Your task to perform on an android device: turn on showing notifications on the lock screen Image 0: 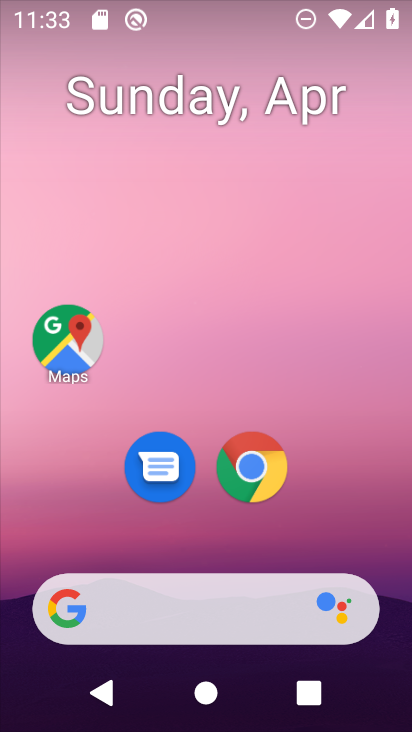
Step 0: drag from (368, 540) to (363, 140)
Your task to perform on an android device: turn on showing notifications on the lock screen Image 1: 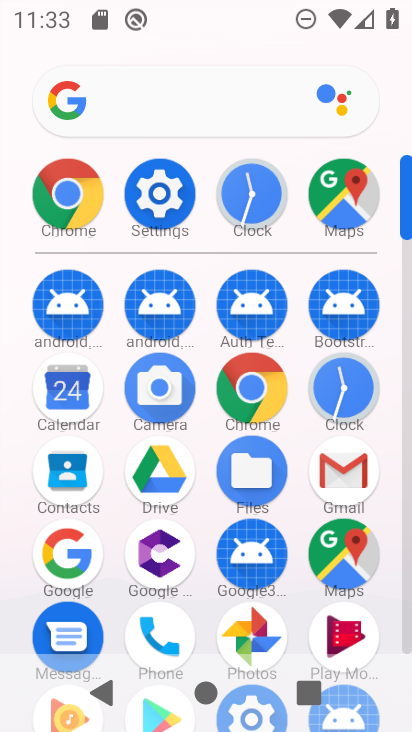
Step 1: click (172, 200)
Your task to perform on an android device: turn on showing notifications on the lock screen Image 2: 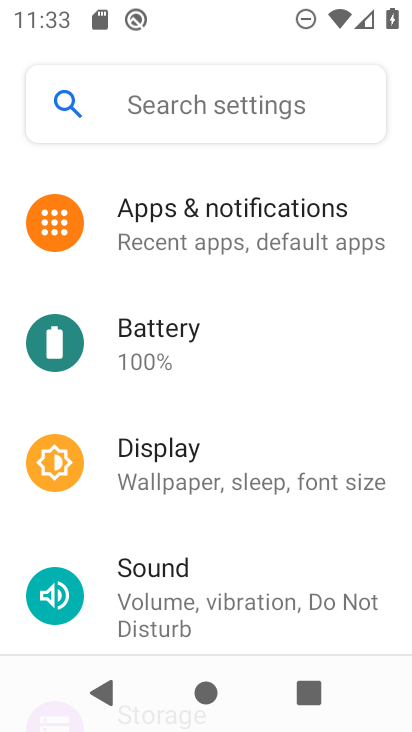
Step 2: drag from (354, 547) to (357, 342)
Your task to perform on an android device: turn on showing notifications on the lock screen Image 3: 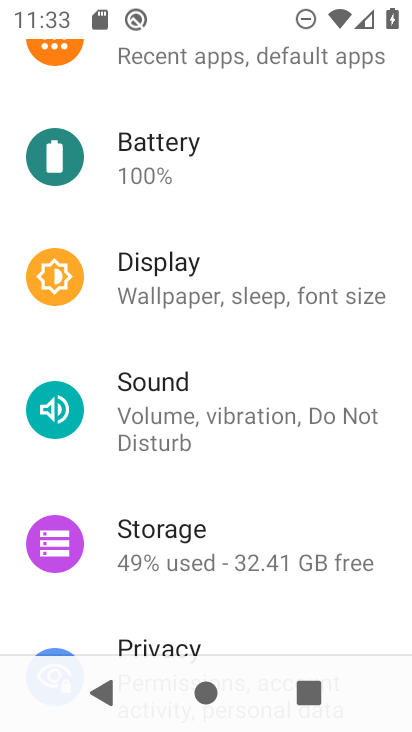
Step 3: drag from (354, 502) to (356, 312)
Your task to perform on an android device: turn on showing notifications on the lock screen Image 4: 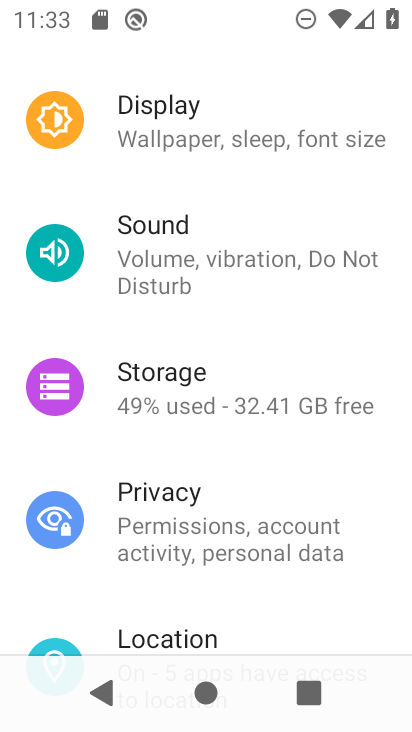
Step 4: drag from (371, 583) to (374, 375)
Your task to perform on an android device: turn on showing notifications on the lock screen Image 5: 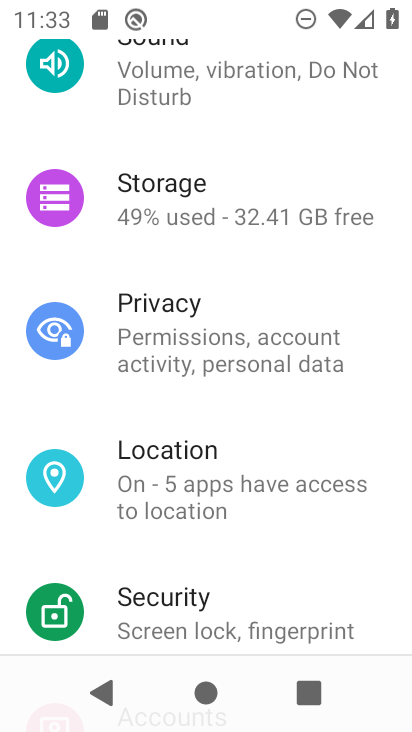
Step 5: drag from (370, 552) to (361, 353)
Your task to perform on an android device: turn on showing notifications on the lock screen Image 6: 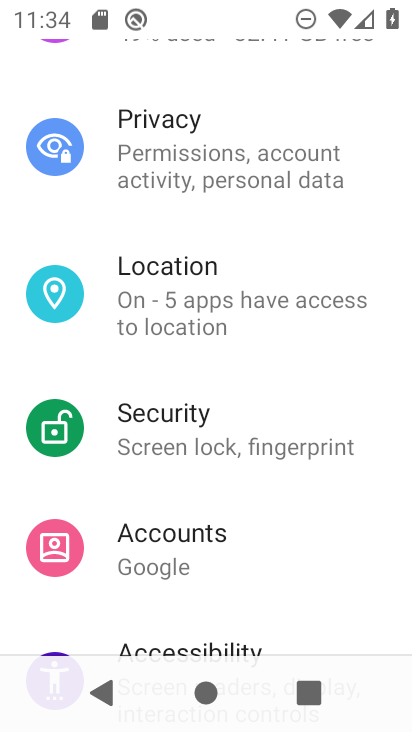
Step 6: drag from (377, 193) to (373, 327)
Your task to perform on an android device: turn on showing notifications on the lock screen Image 7: 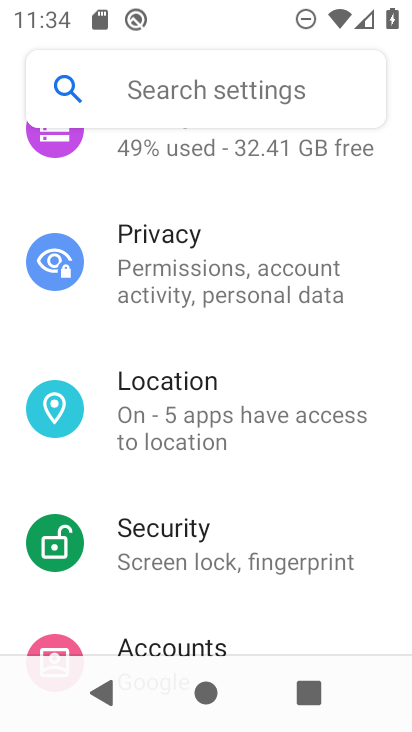
Step 7: drag from (384, 208) to (388, 376)
Your task to perform on an android device: turn on showing notifications on the lock screen Image 8: 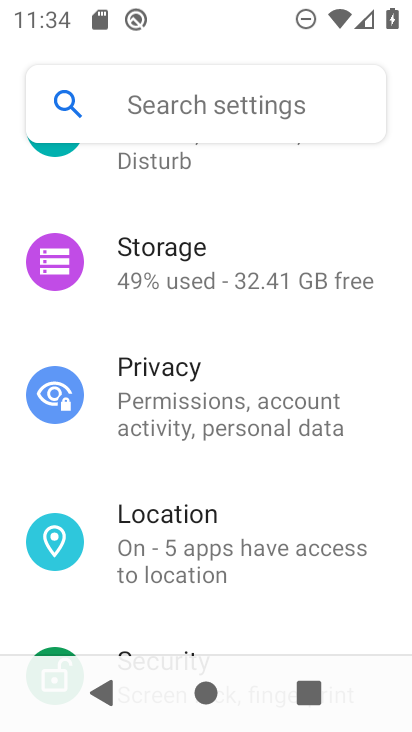
Step 8: drag from (384, 193) to (376, 392)
Your task to perform on an android device: turn on showing notifications on the lock screen Image 9: 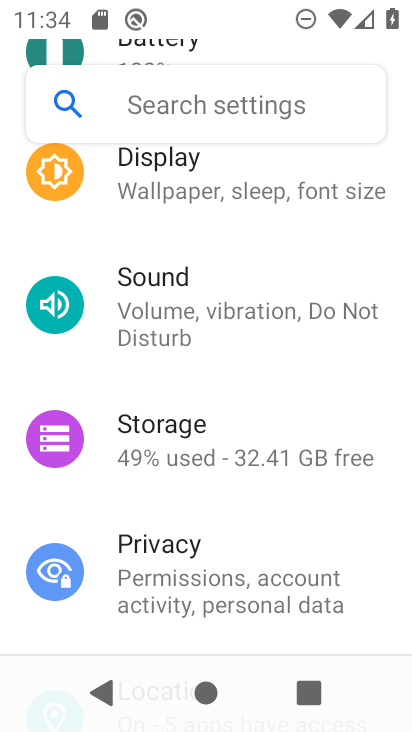
Step 9: drag from (388, 161) to (384, 396)
Your task to perform on an android device: turn on showing notifications on the lock screen Image 10: 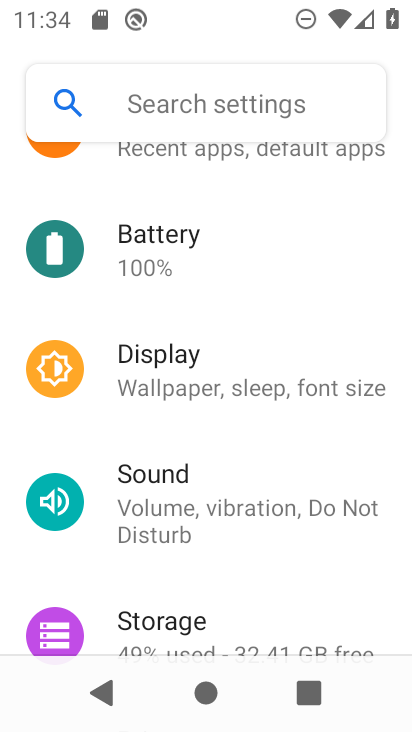
Step 10: drag from (363, 191) to (360, 404)
Your task to perform on an android device: turn on showing notifications on the lock screen Image 11: 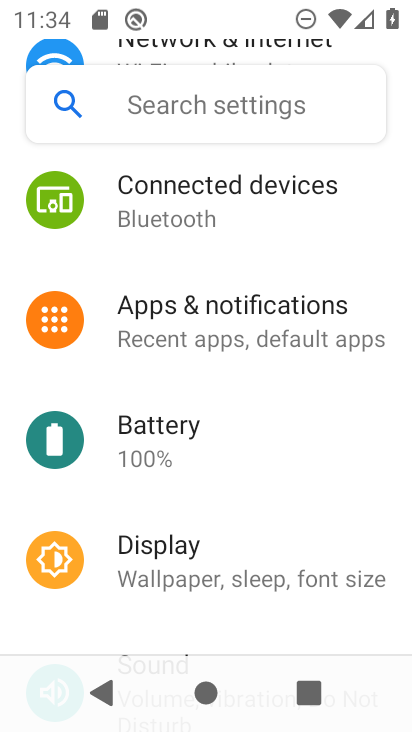
Step 11: drag from (357, 156) to (362, 384)
Your task to perform on an android device: turn on showing notifications on the lock screen Image 12: 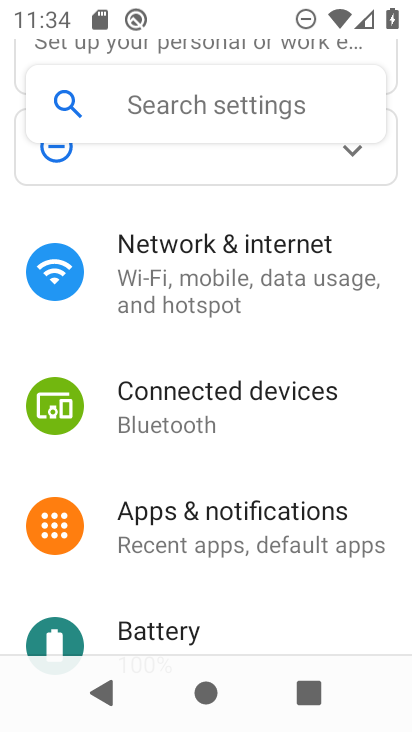
Step 12: click (321, 518)
Your task to perform on an android device: turn on showing notifications on the lock screen Image 13: 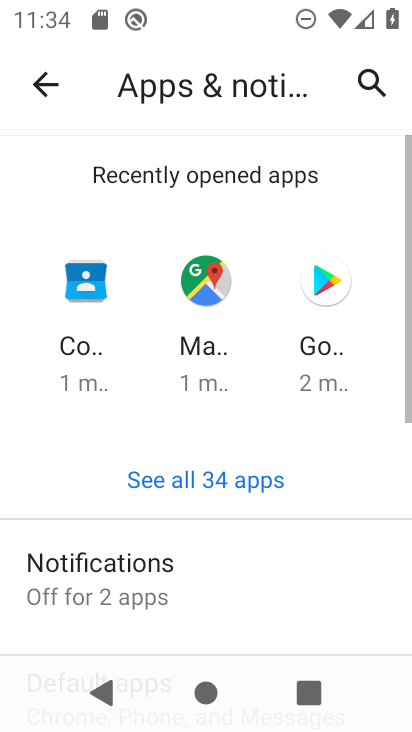
Step 13: drag from (276, 561) to (260, 345)
Your task to perform on an android device: turn on showing notifications on the lock screen Image 14: 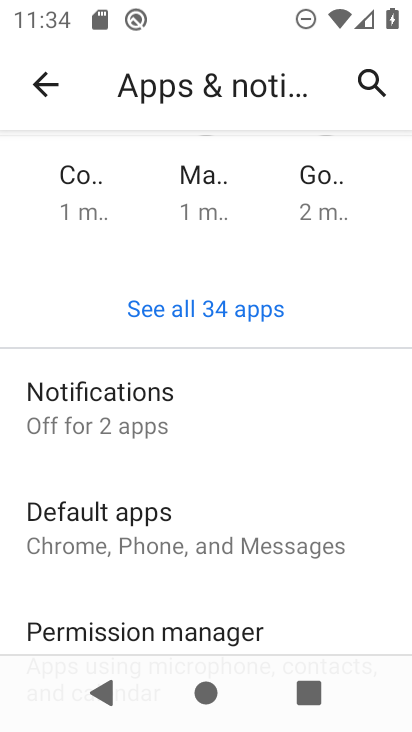
Step 14: click (142, 412)
Your task to perform on an android device: turn on showing notifications on the lock screen Image 15: 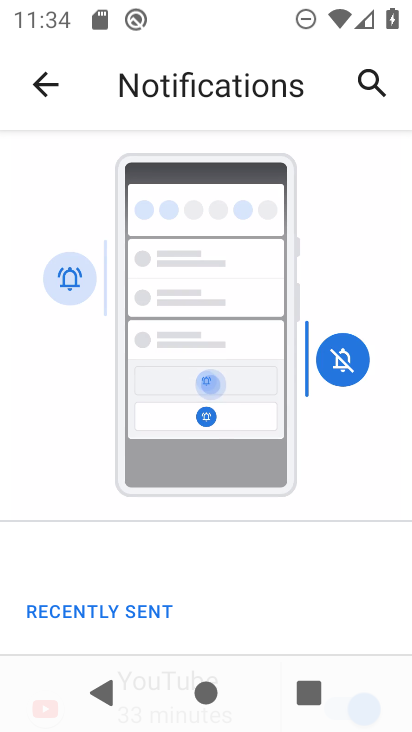
Step 15: drag from (250, 571) to (240, 353)
Your task to perform on an android device: turn on showing notifications on the lock screen Image 16: 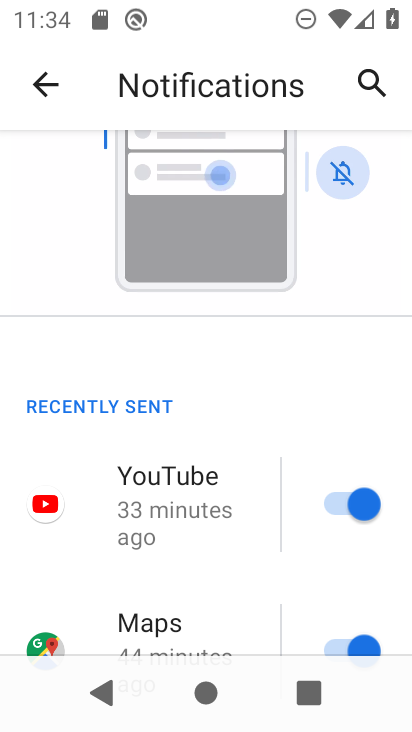
Step 16: drag from (244, 601) to (235, 351)
Your task to perform on an android device: turn on showing notifications on the lock screen Image 17: 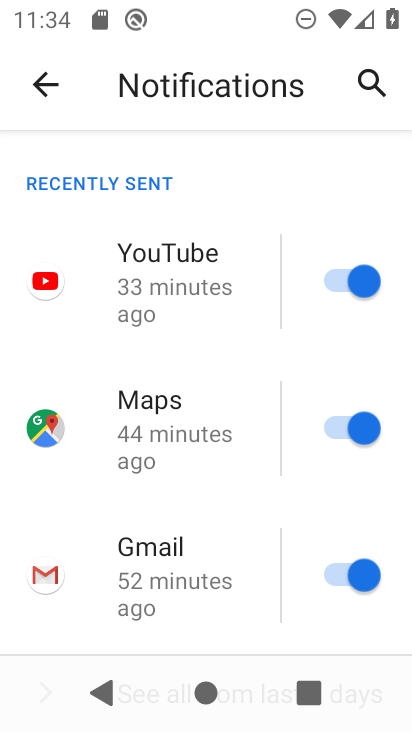
Step 17: drag from (255, 611) to (251, 384)
Your task to perform on an android device: turn on showing notifications on the lock screen Image 18: 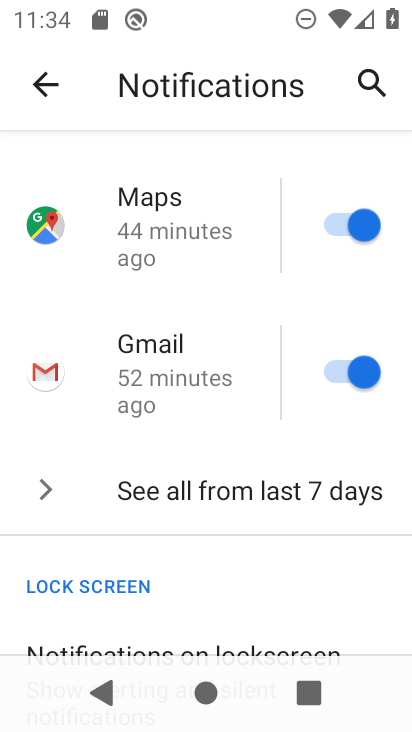
Step 18: drag from (241, 603) to (247, 411)
Your task to perform on an android device: turn on showing notifications on the lock screen Image 19: 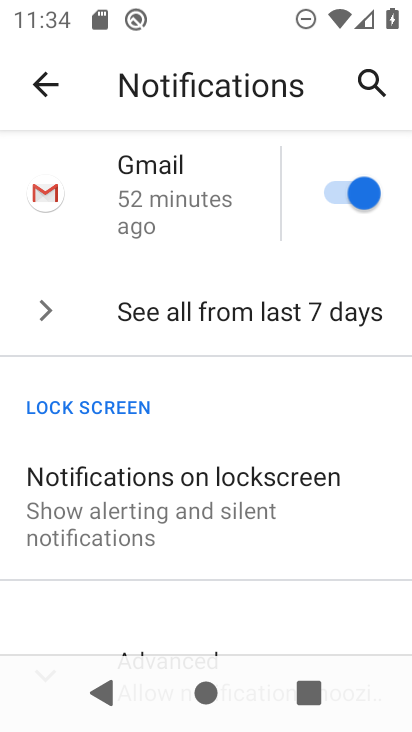
Step 19: click (227, 492)
Your task to perform on an android device: turn on showing notifications on the lock screen Image 20: 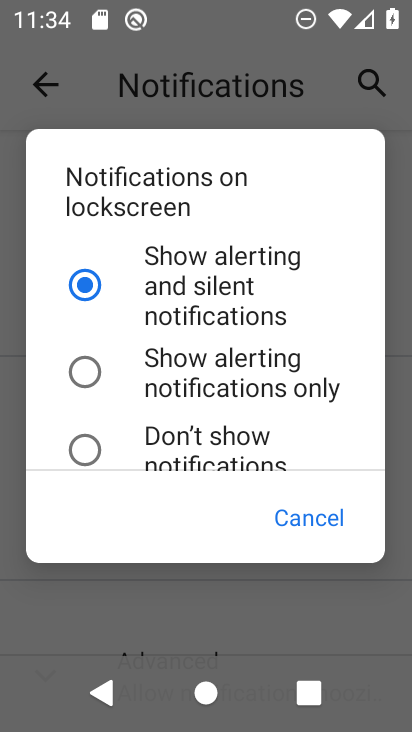
Step 20: task complete